Your task to perform on an android device: check battery use Image 0: 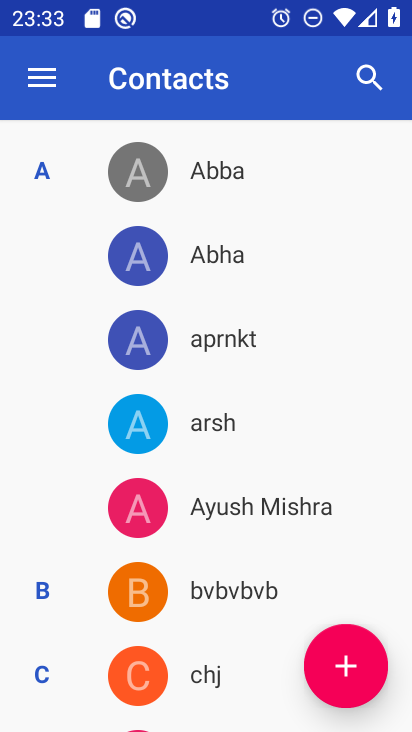
Step 0: press home button
Your task to perform on an android device: check battery use Image 1: 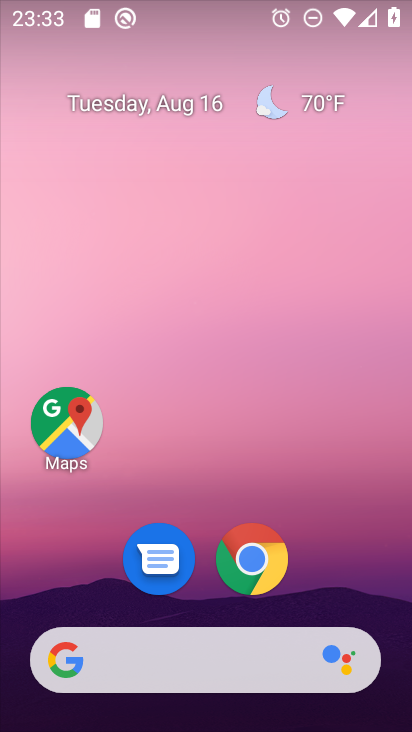
Step 1: drag from (176, 679) to (260, 124)
Your task to perform on an android device: check battery use Image 2: 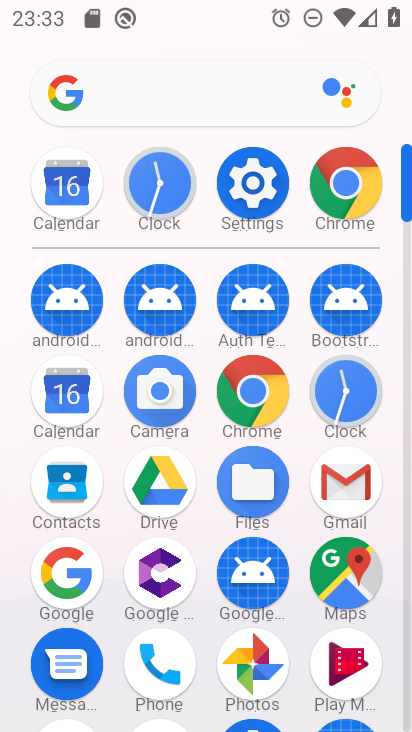
Step 2: click (254, 182)
Your task to perform on an android device: check battery use Image 3: 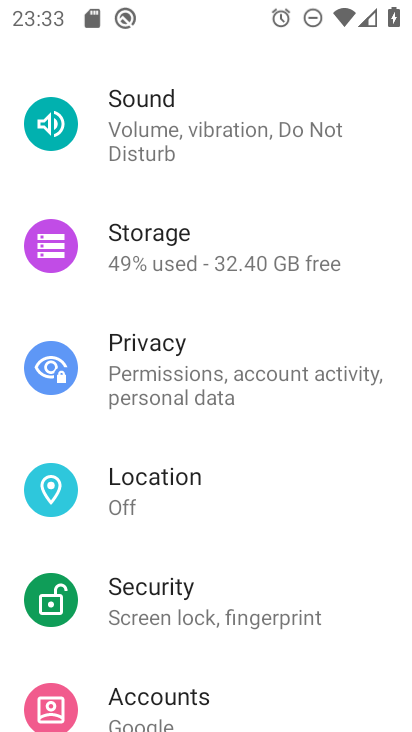
Step 3: drag from (194, 565) to (251, 464)
Your task to perform on an android device: check battery use Image 4: 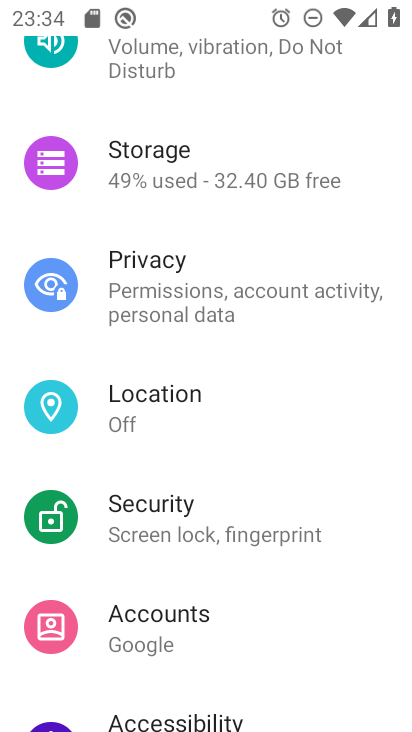
Step 4: drag from (241, 250) to (225, 437)
Your task to perform on an android device: check battery use Image 5: 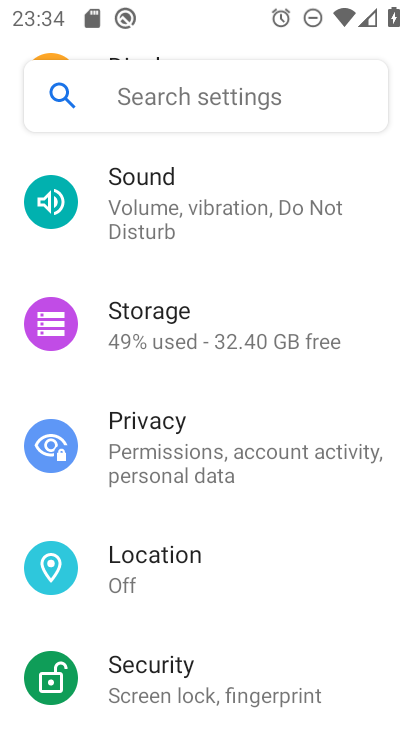
Step 5: drag from (222, 277) to (248, 454)
Your task to perform on an android device: check battery use Image 6: 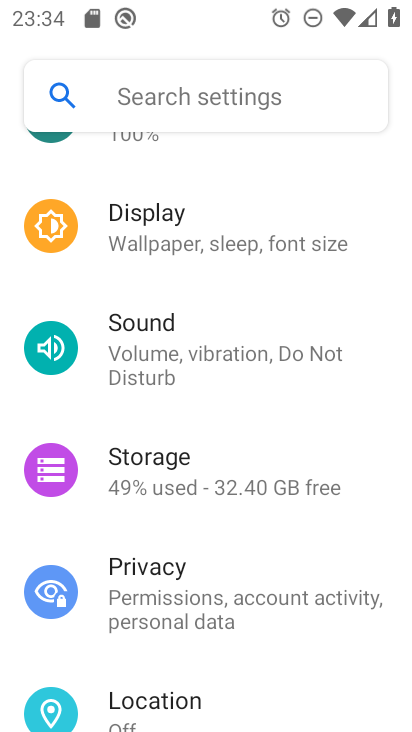
Step 6: drag from (222, 301) to (229, 439)
Your task to perform on an android device: check battery use Image 7: 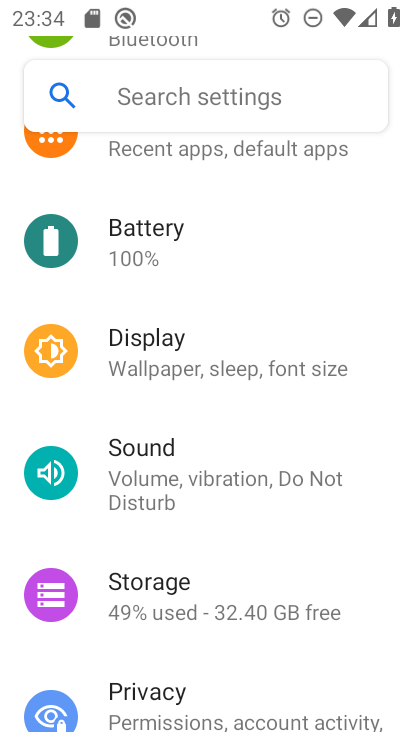
Step 7: click (162, 255)
Your task to perform on an android device: check battery use Image 8: 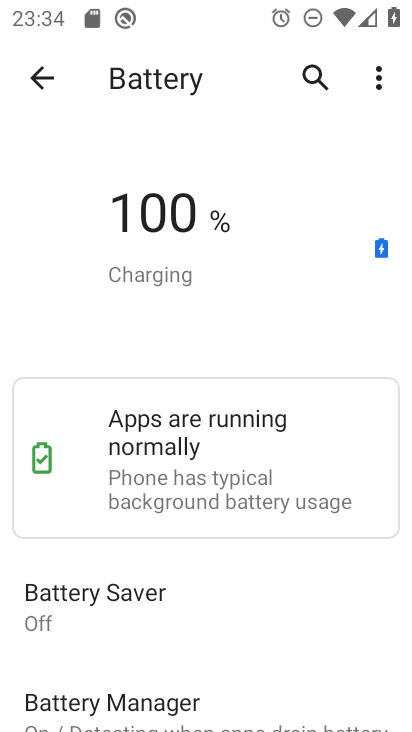
Step 8: click (379, 81)
Your task to perform on an android device: check battery use Image 9: 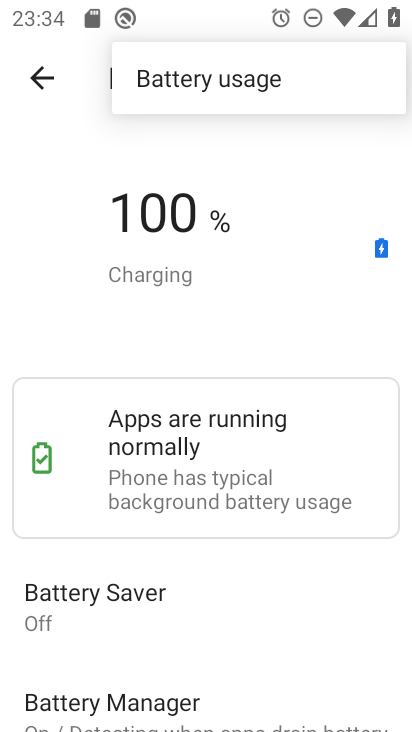
Step 9: click (245, 79)
Your task to perform on an android device: check battery use Image 10: 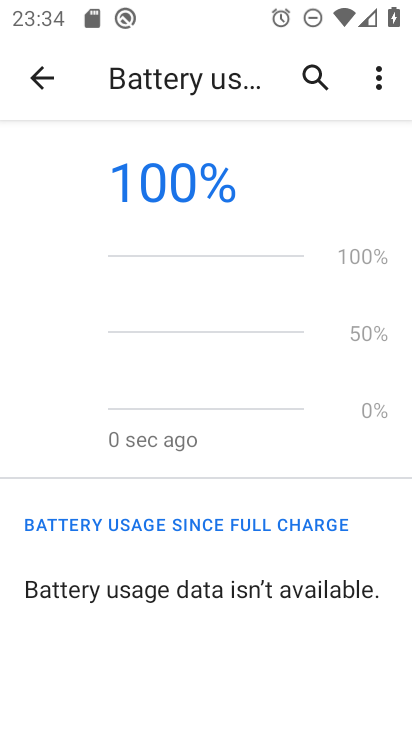
Step 10: task complete